Your task to perform on an android device: Is it going to rain this weekend? Image 0: 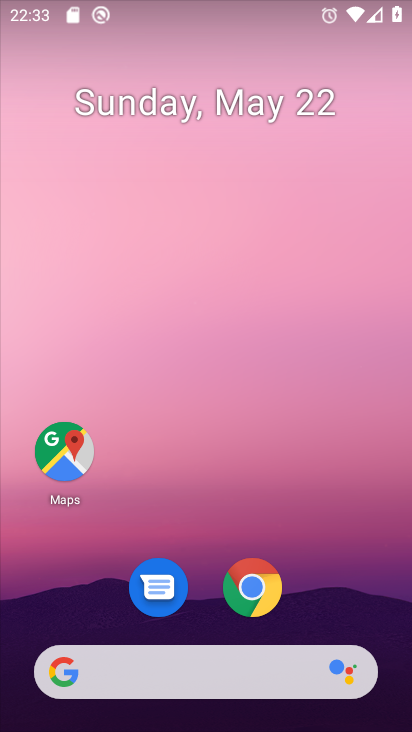
Step 0: click (184, 669)
Your task to perform on an android device: Is it going to rain this weekend? Image 1: 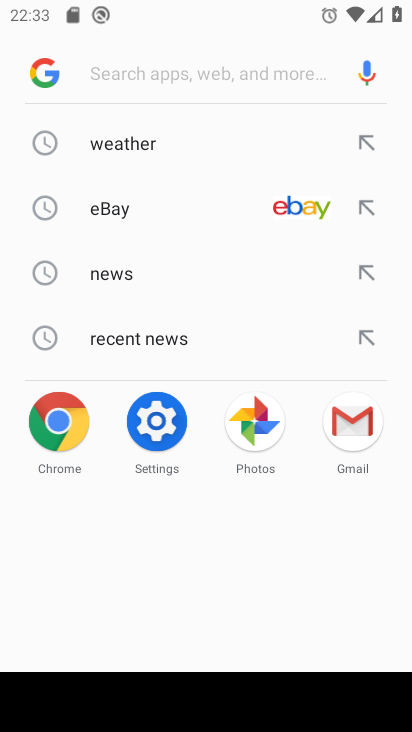
Step 1: click (112, 138)
Your task to perform on an android device: Is it going to rain this weekend? Image 2: 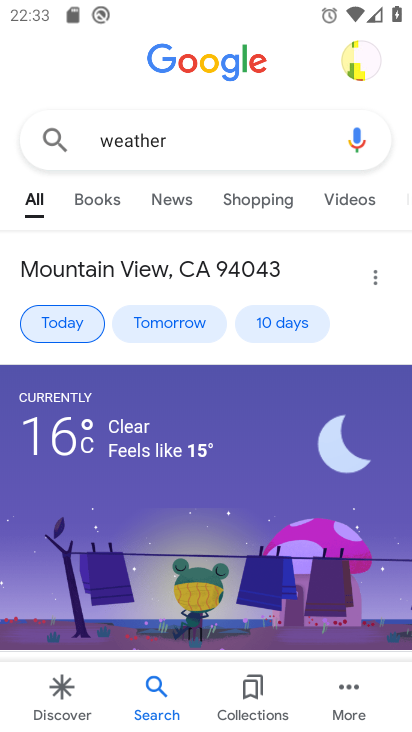
Step 2: click (76, 311)
Your task to perform on an android device: Is it going to rain this weekend? Image 3: 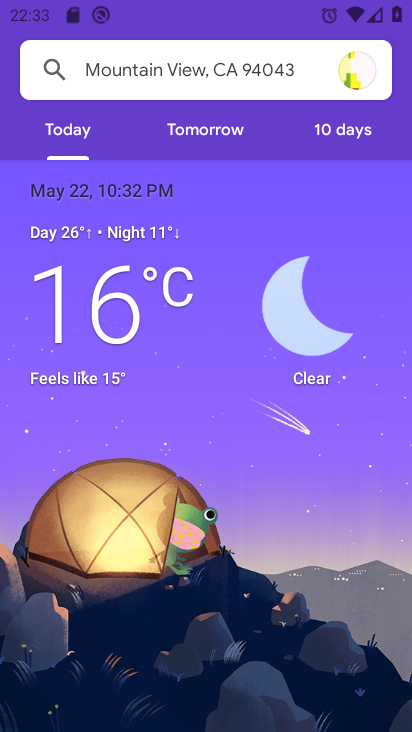
Step 3: click (355, 133)
Your task to perform on an android device: Is it going to rain this weekend? Image 4: 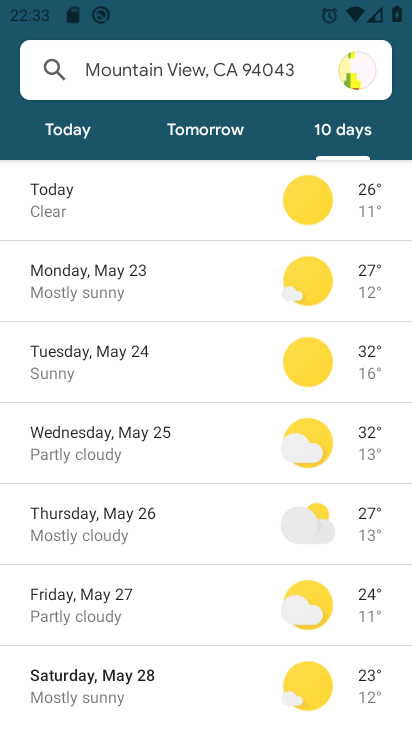
Step 4: task complete